Your task to perform on an android device: delete browsing data in the chrome app Image 0: 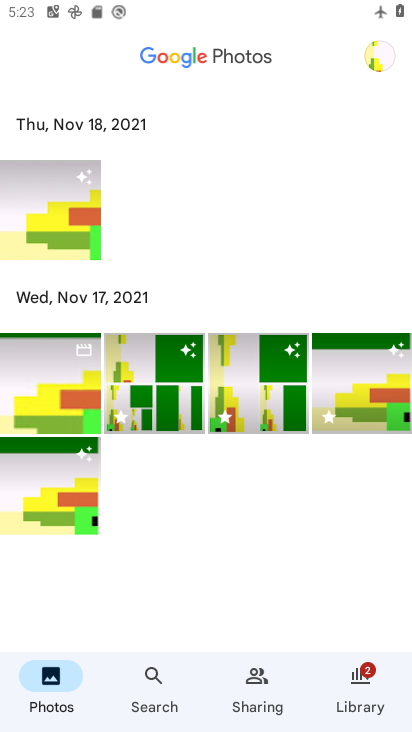
Step 0: drag from (246, 613) to (275, 48)
Your task to perform on an android device: delete browsing data in the chrome app Image 1: 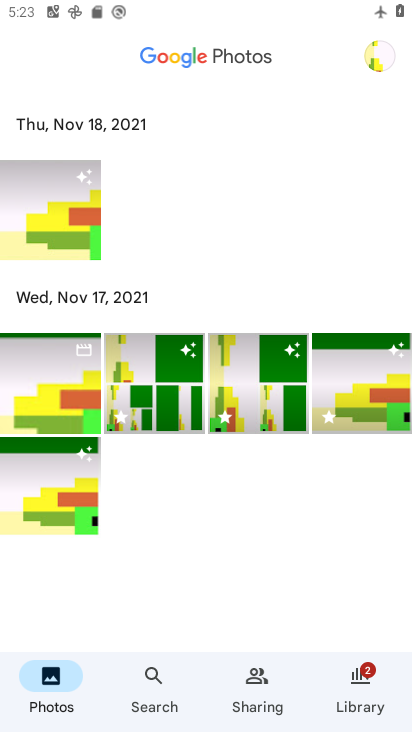
Step 1: press home button
Your task to perform on an android device: delete browsing data in the chrome app Image 2: 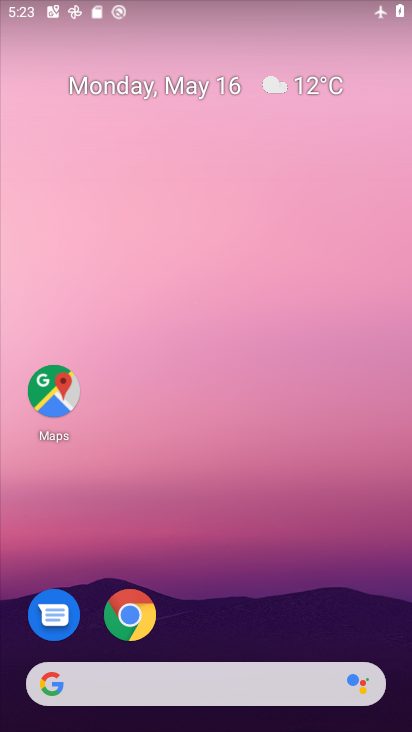
Step 2: click (132, 620)
Your task to perform on an android device: delete browsing data in the chrome app Image 3: 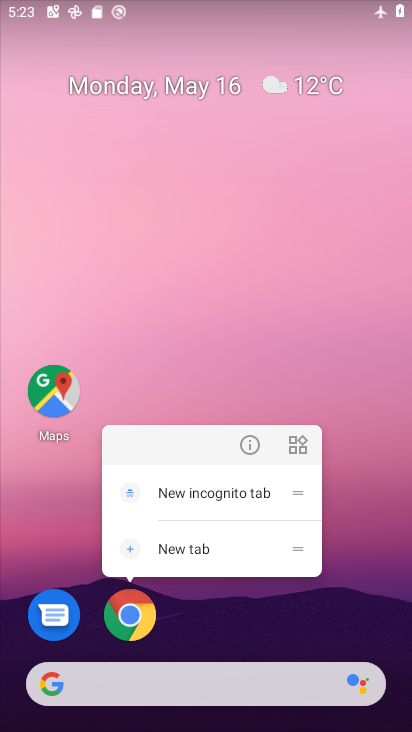
Step 3: click (125, 628)
Your task to perform on an android device: delete browsing data in the chrome app Image 4: 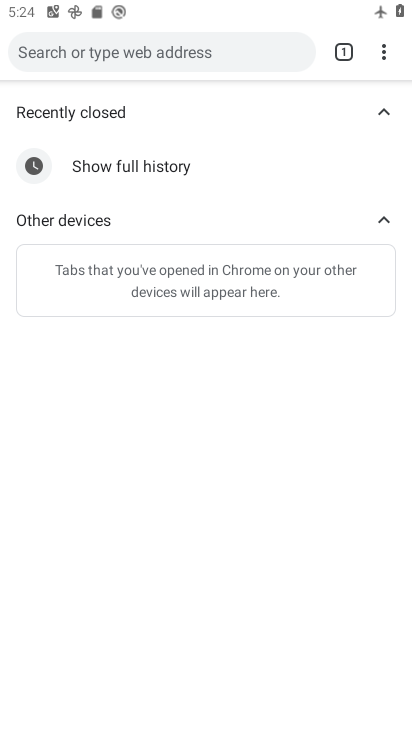
Step 4: click (382, 56)
Your task to perform on an android device: delete browsing data in the chrome app Image 5: 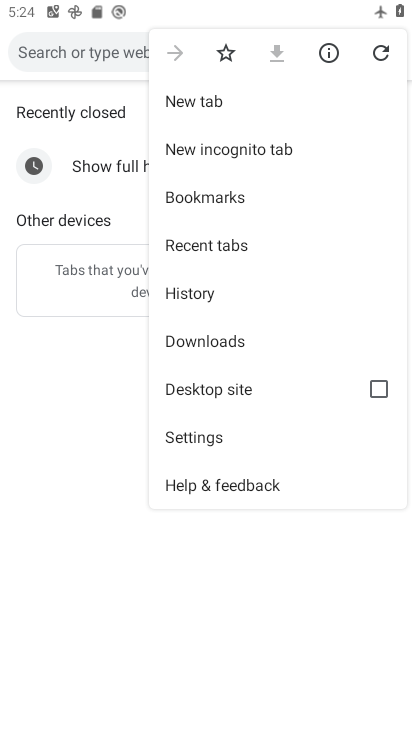
Step 5: click (206, 298)
Your task to perform on an android device: delete browsing data in the chrome app Image 6: 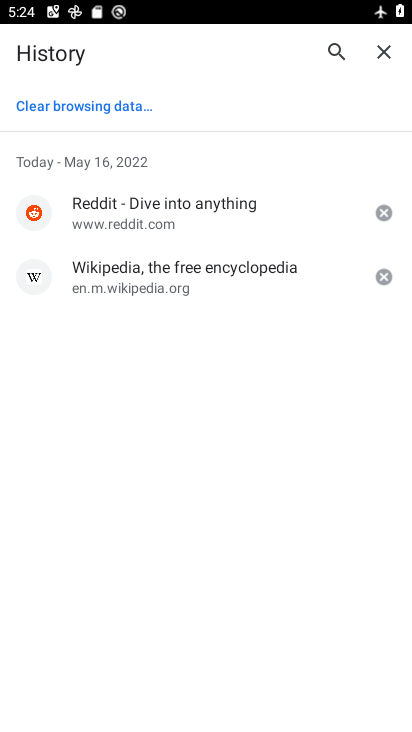
Step 6: click (97, 108)
Your task to perform on an android device: delete browsing data in the chrome app Image 7: 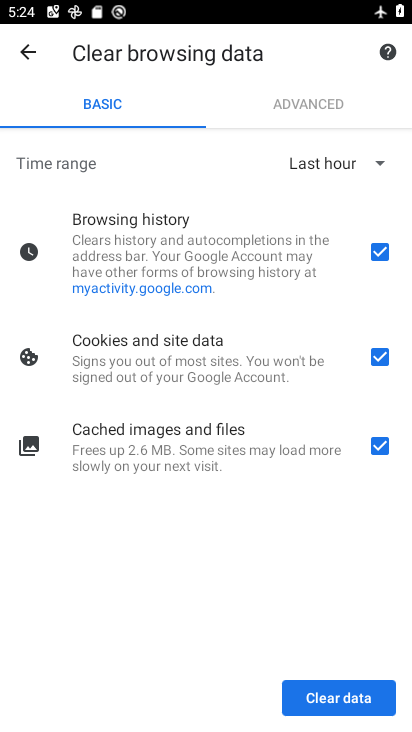
Step 7: click (338, 696)
Your task to perform on an android device: delete browsing data in the chrome app Image 8: 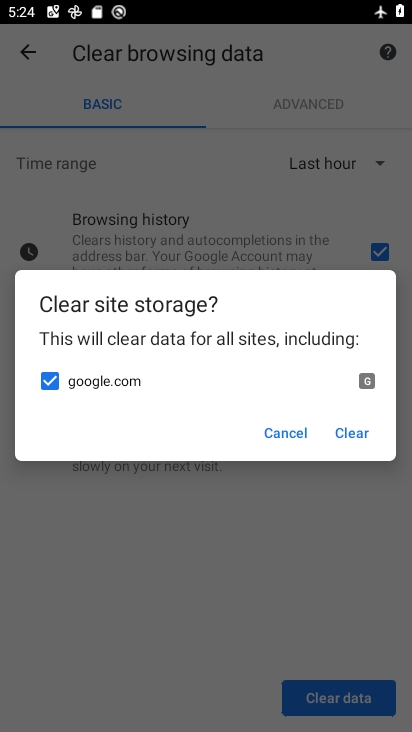
Step 8: click (355, 430)
Your task to perform on an android device: delete browsing data in the chrome app Image 9: 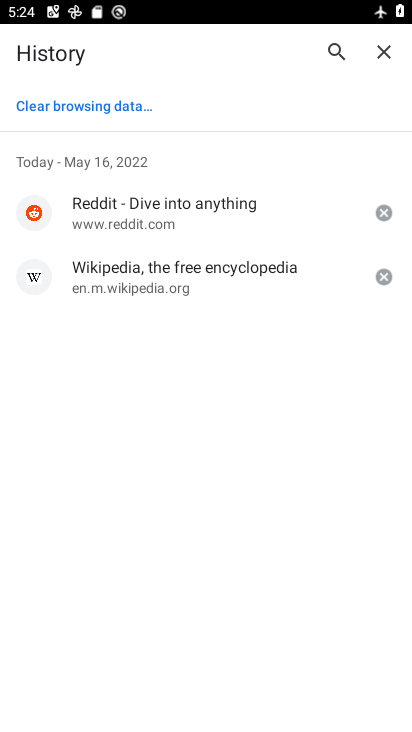
Step 9: click (64, 108)
Your task to perform on an android device: delete browsing data in the chrome app Image 10: 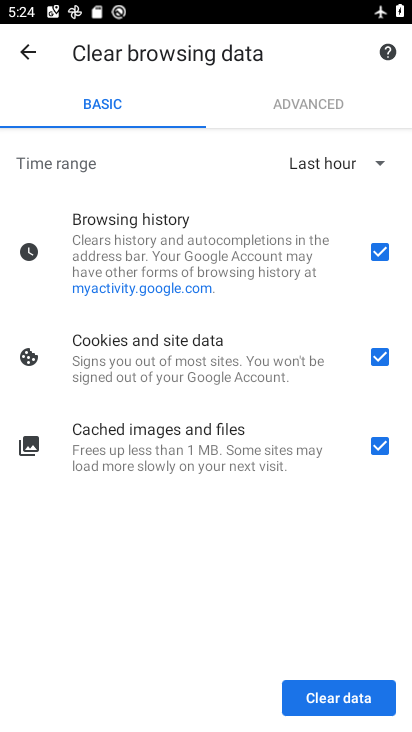
Step 10: click (321, 703)
Your task to perform on an android device: delete browsing data in the chrome app Image 11: 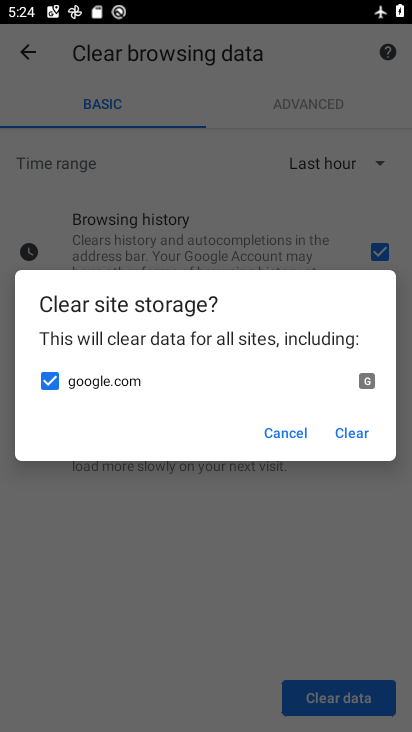
Step 11: click (348, 432)
Your task to perform on an android device: delete browsing data in the chrome app Image 12: 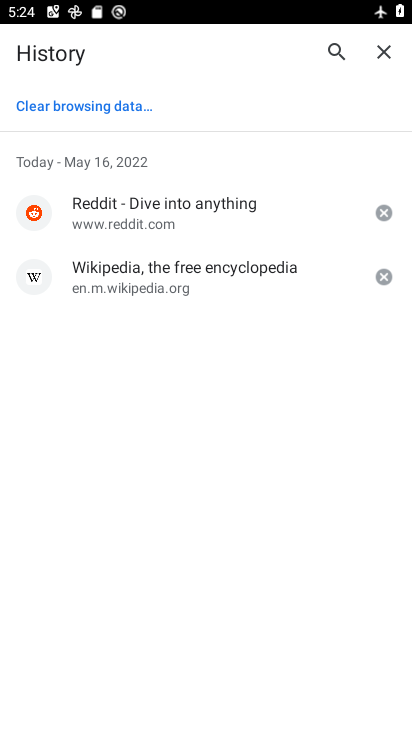
Step 12: task complete